Your task to perform on an android device: Open notification settings Image 0: 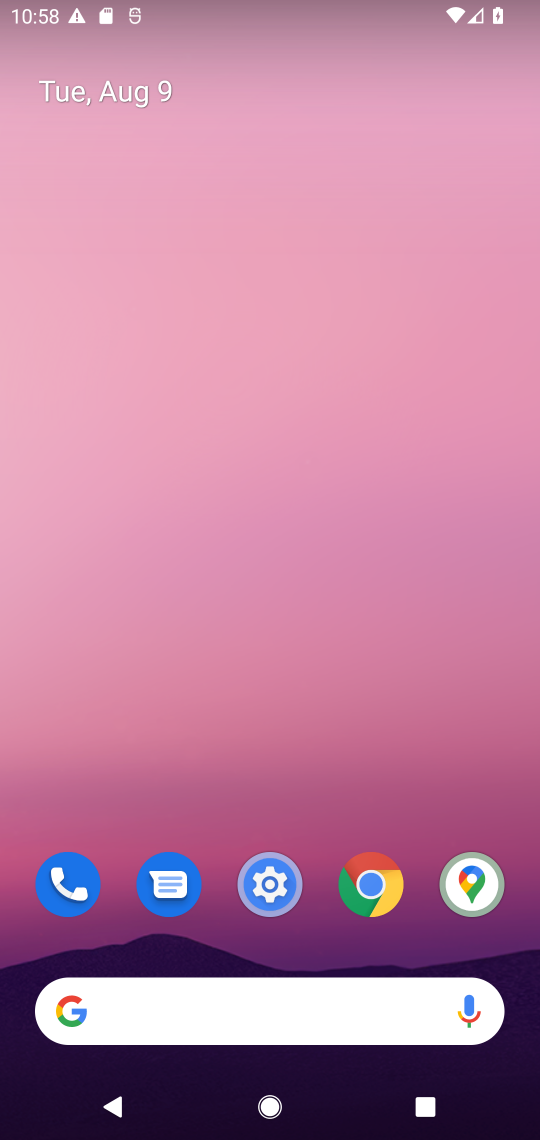
Step 0: drag from (353, 1032) to (279, 286)
Your task to perform on an android device: Open notification settings Image 1: 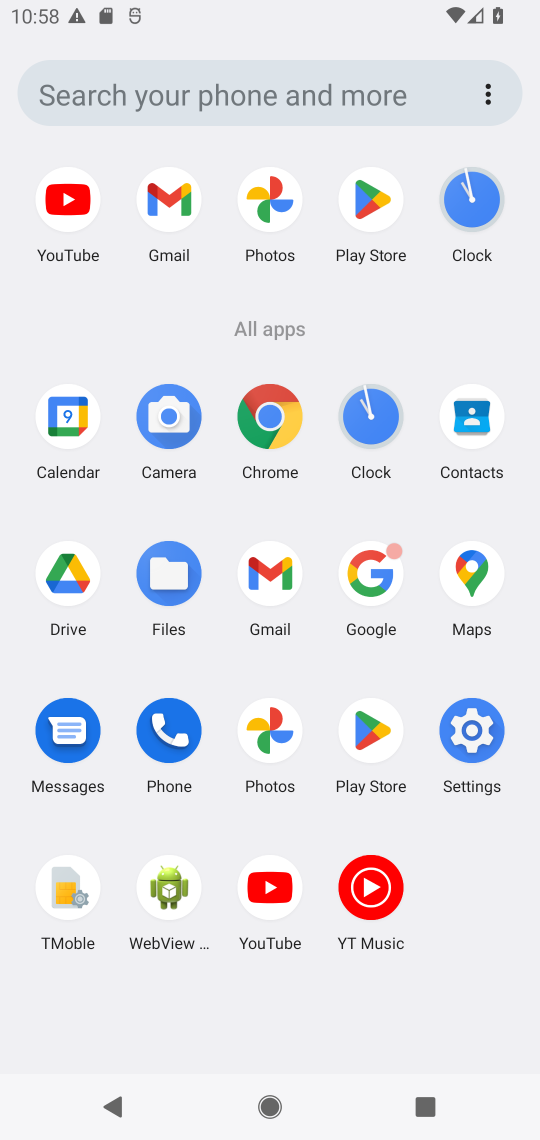
Step 1: click (464, 723)
Your task to perform on an android device: Open notification settings Image 2: 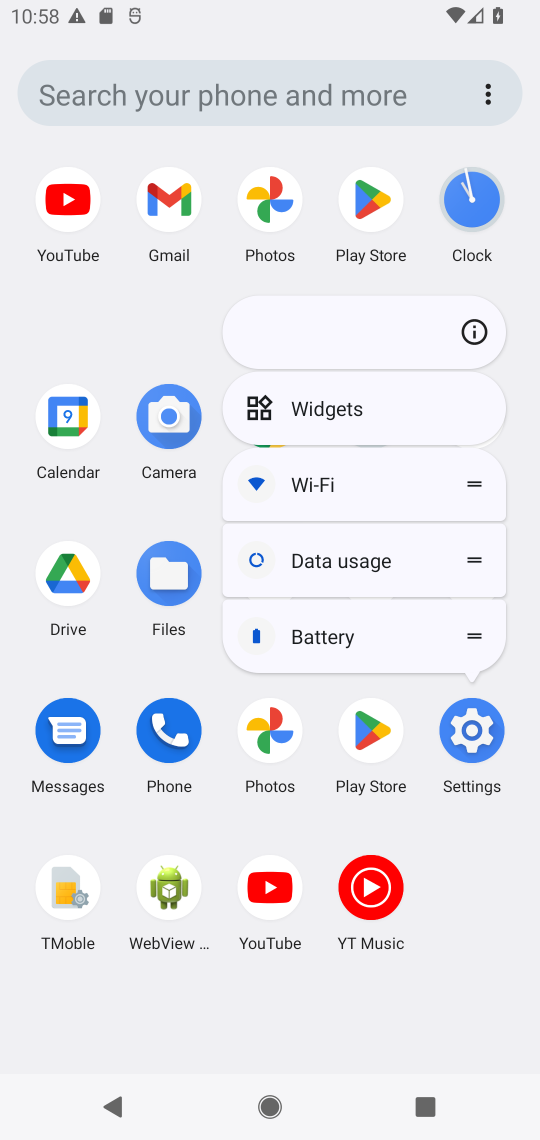
Step 2: click (470, 735)
Your task to perform on an android device: Open notification settings Image 3: 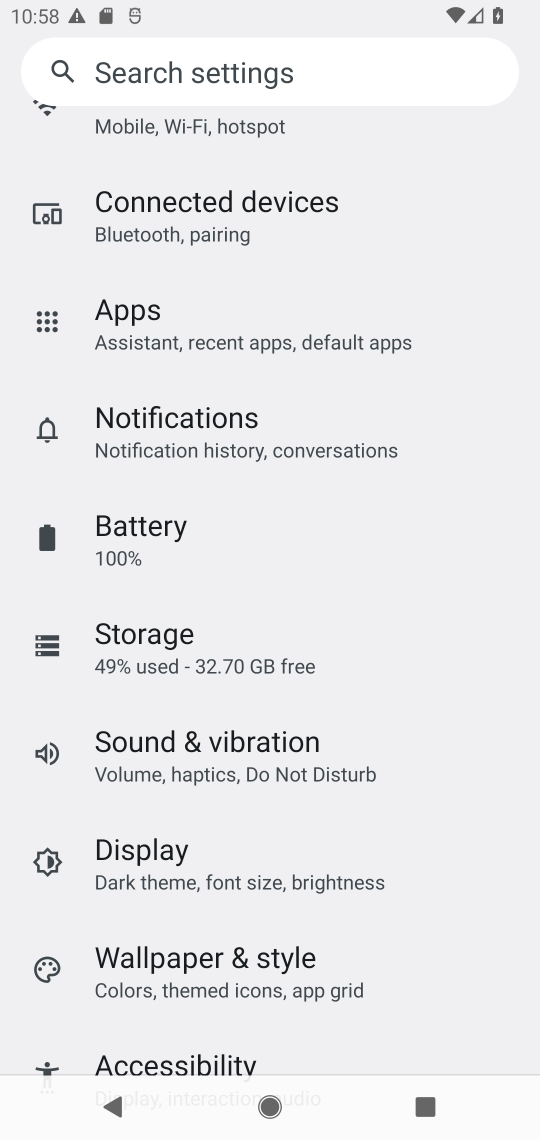
Step 3: click (162, 439)
Your task to perform on an android device: Open notification settings Image 4: 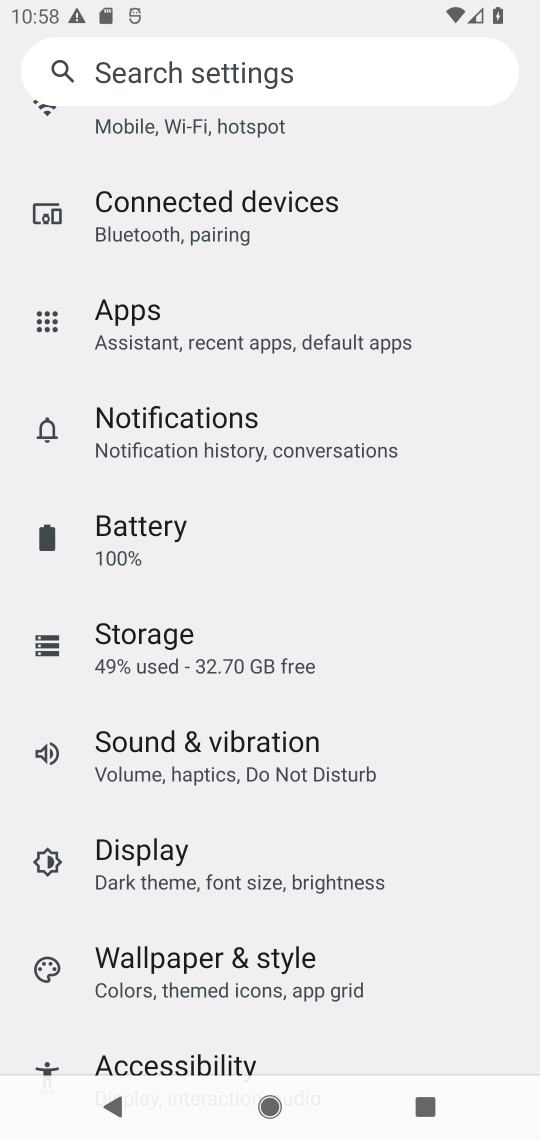
Step 4: click (161, 452)
Your task to perform on an android device: Open notification settings Image 5: 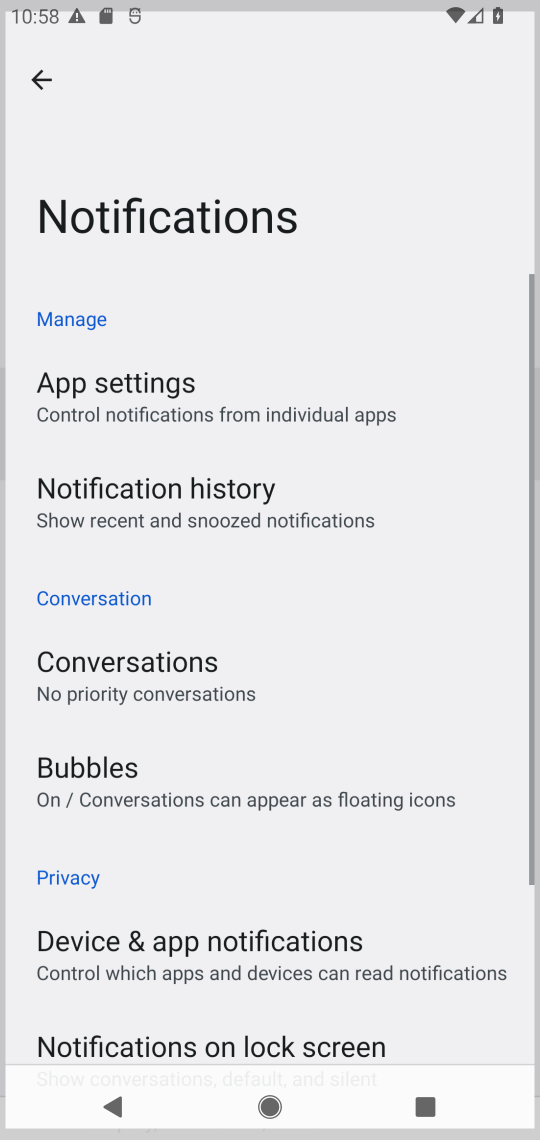
Step 5: click (165, 440)
Your task to perform on an android device: Open notification settings Image 6: 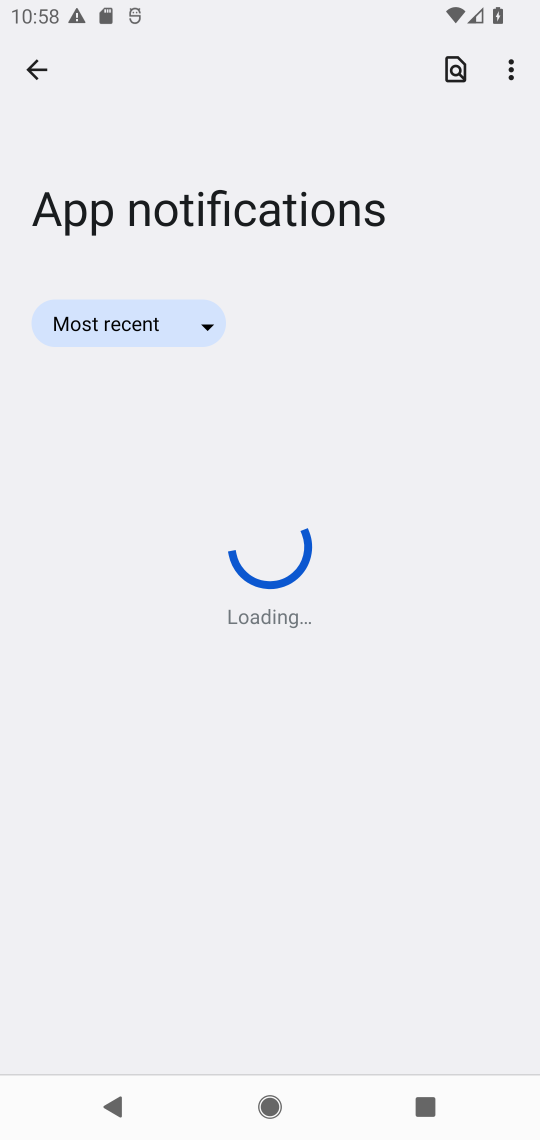
Step 6: task complete